Your task to perform on an android device: open wifi settings Image 0: 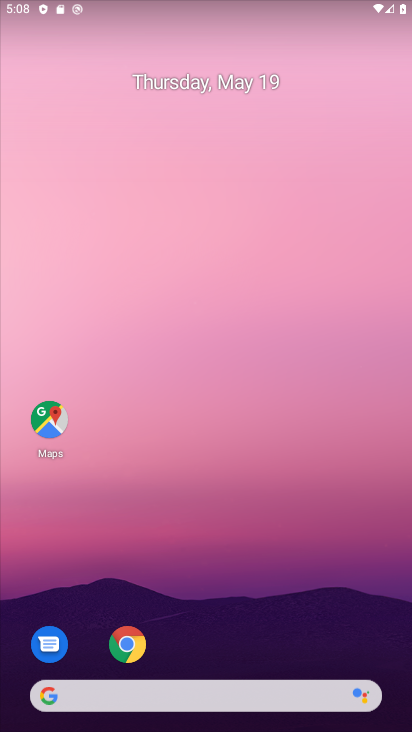
Step 0: drag from (89, 6) to (151, 524)
Your task to perform on an android device: open wifi settings Image 1: 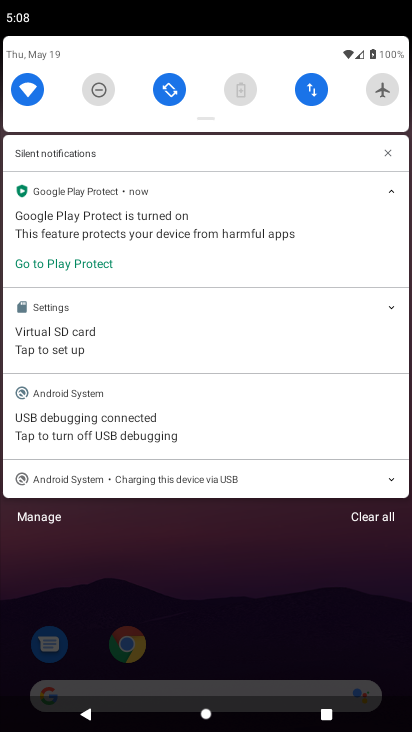
Step 1: click (27, 85)
Your task to perform on an android device: open wifi settings Image 2: 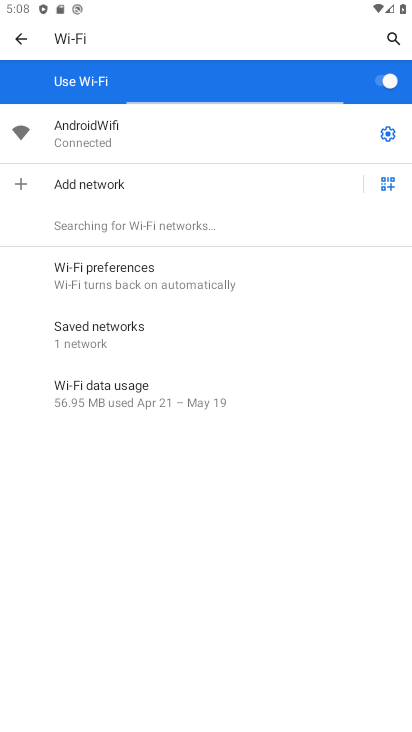
Step 2: task complete